Your task to perform on an android device: change notification settings in the gmail app Image 0: 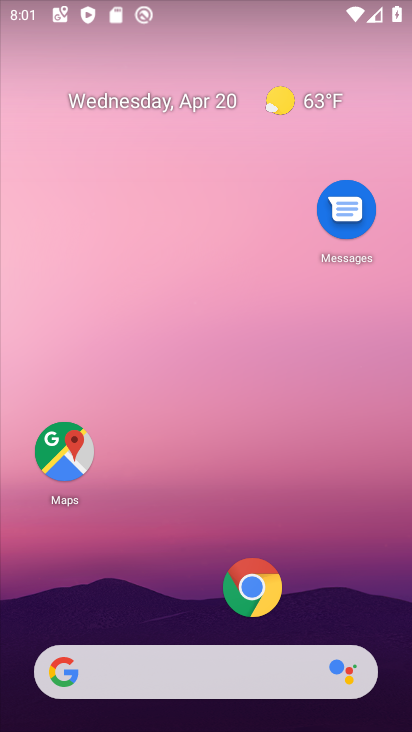
Step 0: drag from (170, 669) to (270, 111)
Your task to perform on an android device: change notification settings in the gmail app Image 1: 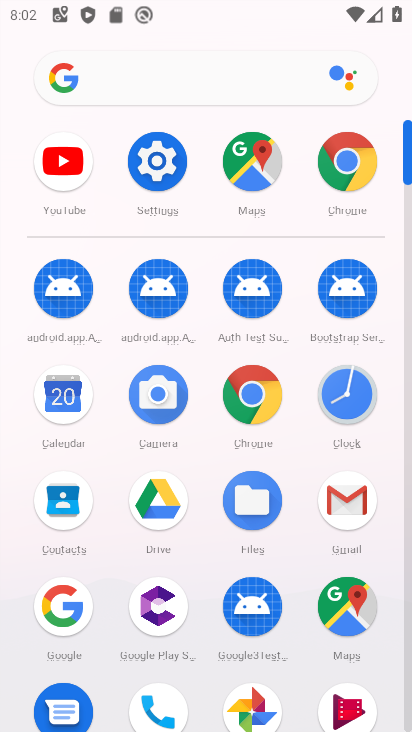
Step 1: click (350, 509)
Your task to perform on an android device: change notification settings in the gmail app Image 2: 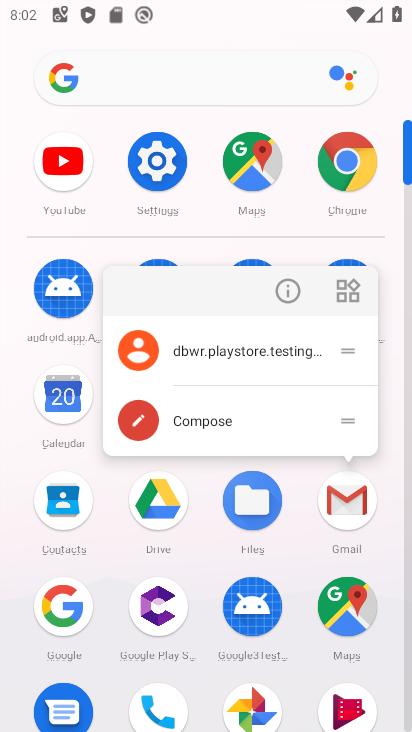
Step 2: click (344, 510)
Your task to perform on an android device: change notification settings in the gmail app Image 3: 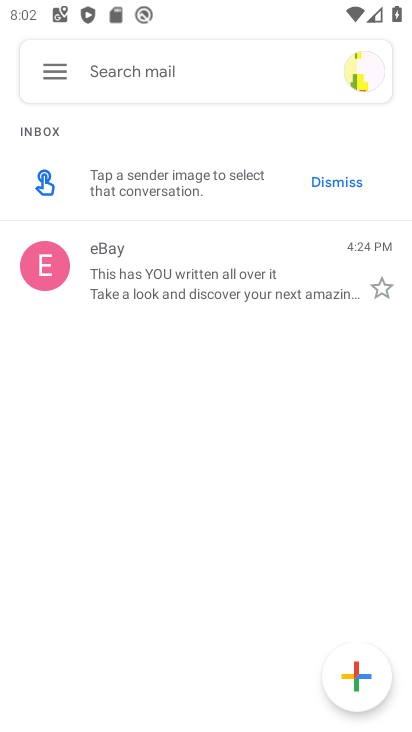
Step 3: click (48, 76)
Your task to perform on an android device: change notification settings in the gmail app Image 4: 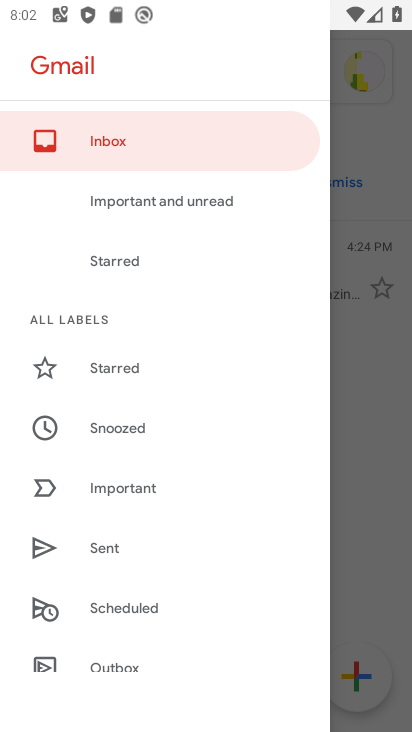
Step 4: drag from (186, 630) to (295, 169)
Your task to perform on an android device: change notification settings in the gmail app Image 5: 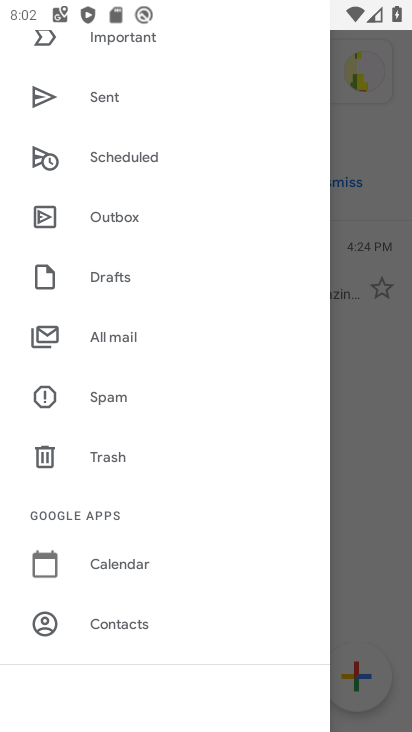
Step 5: drag from (166, 631) to (233, 141)
Your task to perform on an android device: change notification settings in the gmail app Image 6: 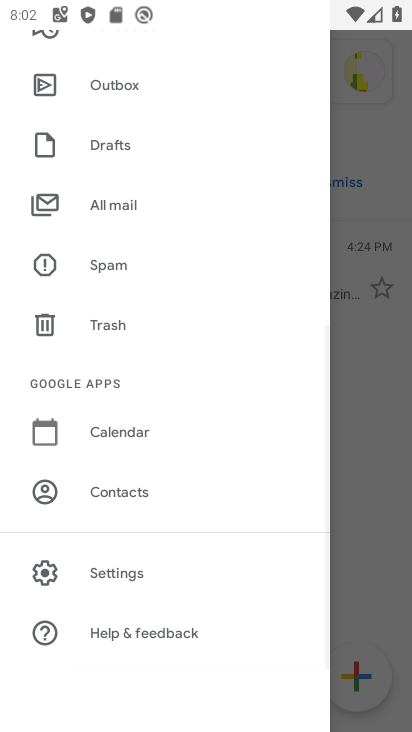
Step 6: click (131, 575)
Your task to perform on an android device: change notification settings in the gmail app Image 7: 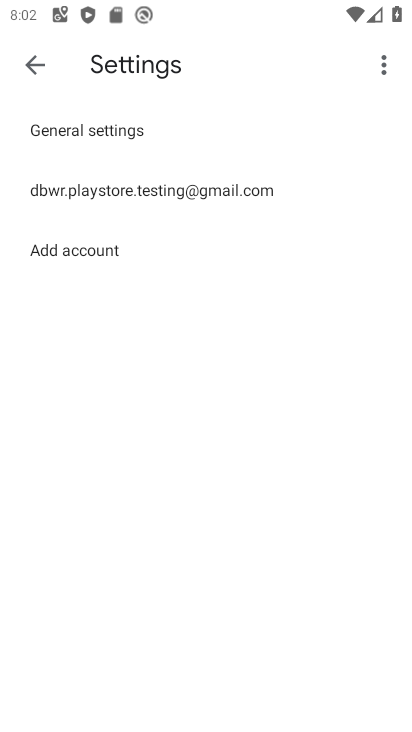
Step 7: click (188, 183)
Your task to perform on an android device: change notification settings in the gmail app Image 8: 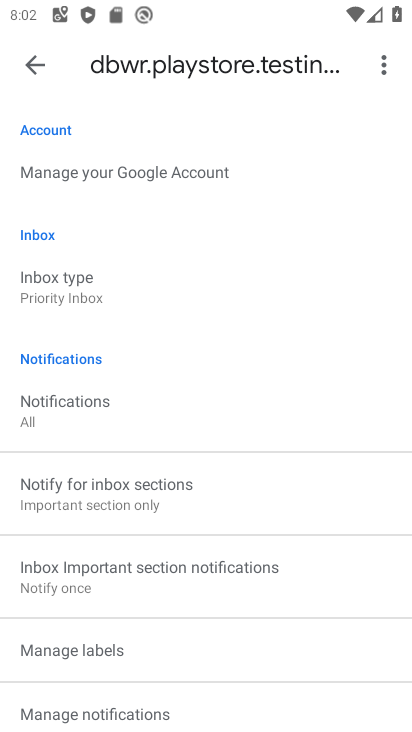
Step 8: click (56, 406)
Your task to perform on an android device: change notification settings in the gmail app Image 9: 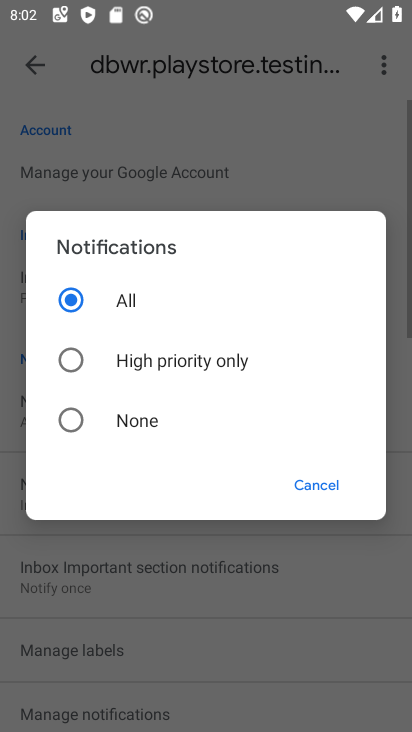
Step 9: click (72, 420)
Your task to perform on an android device: change notification settings in the gmail app Image 10: 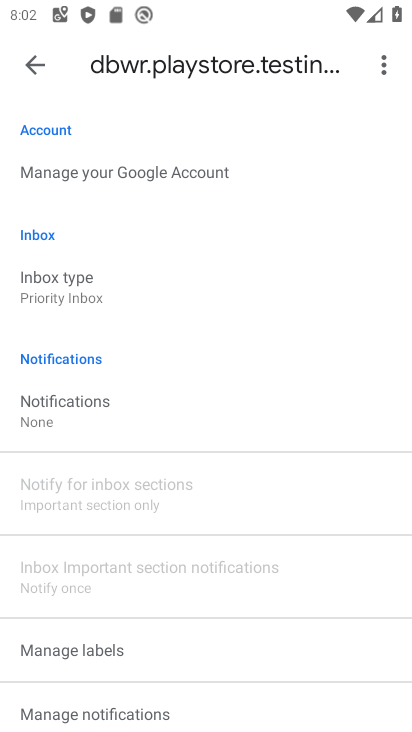
Step 10: task complete